Your task to perform on an android device: check battery use Image 0: 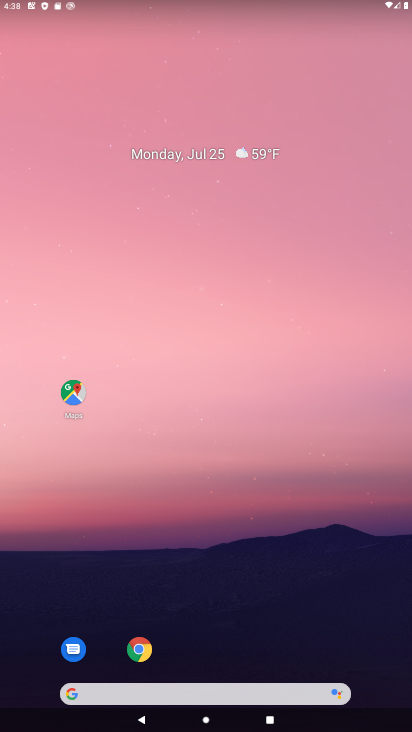
Step 0: drag from (275, 562) to (345, 29)
Your task to perform on an android device: check battery use Image 1: 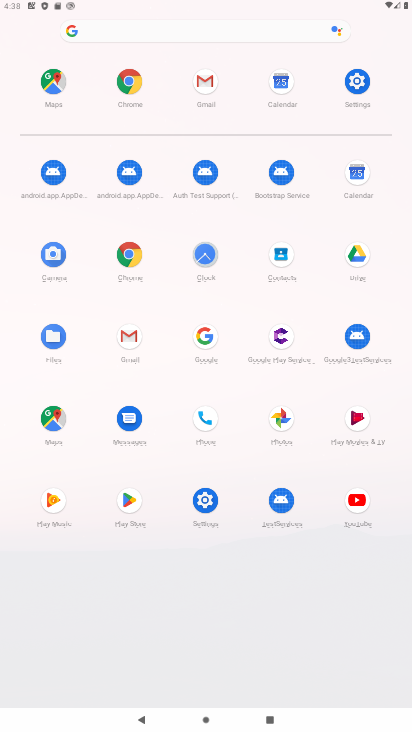
Step 1: click (358, 73)
Your task to perform on an android device: check battery use Image 2: 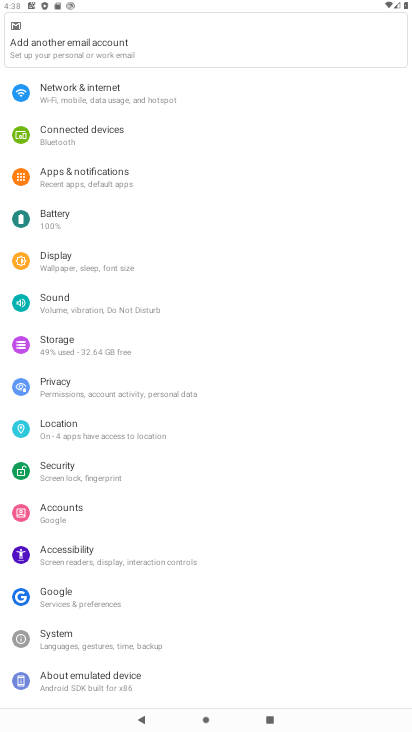
Step 2: click (48, 222)
Your task to perform on an android device: check battery use Image 3: 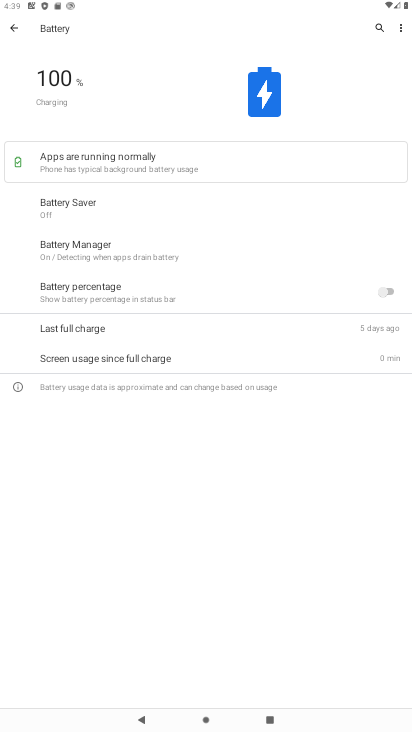
Step 3: task complete